Your task to perform on an android device: Open display settings Image 0: 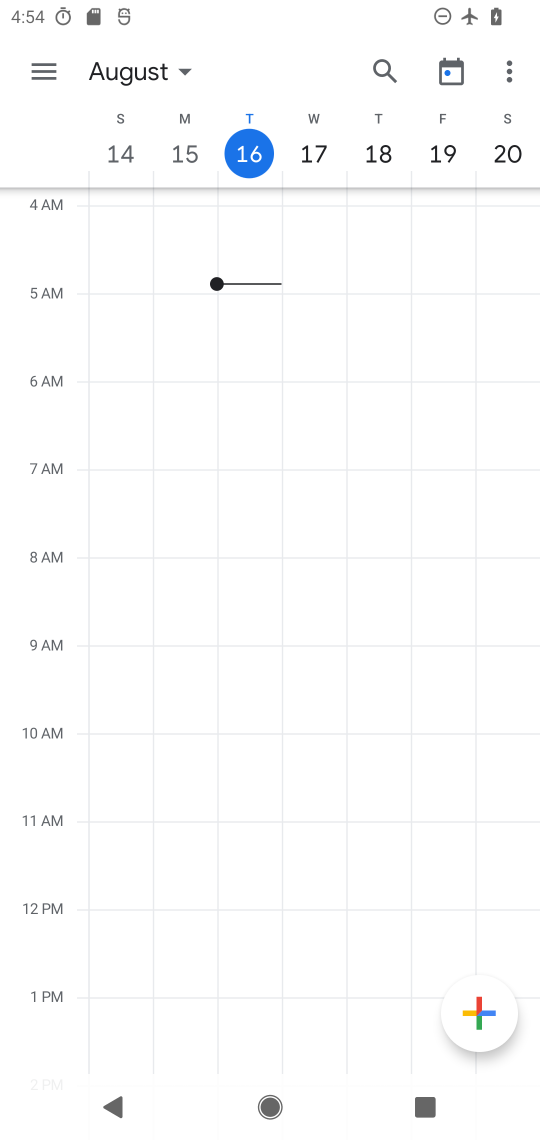
Step 0: press home button
Your task to perform on an android device: Open display settings Image 1: 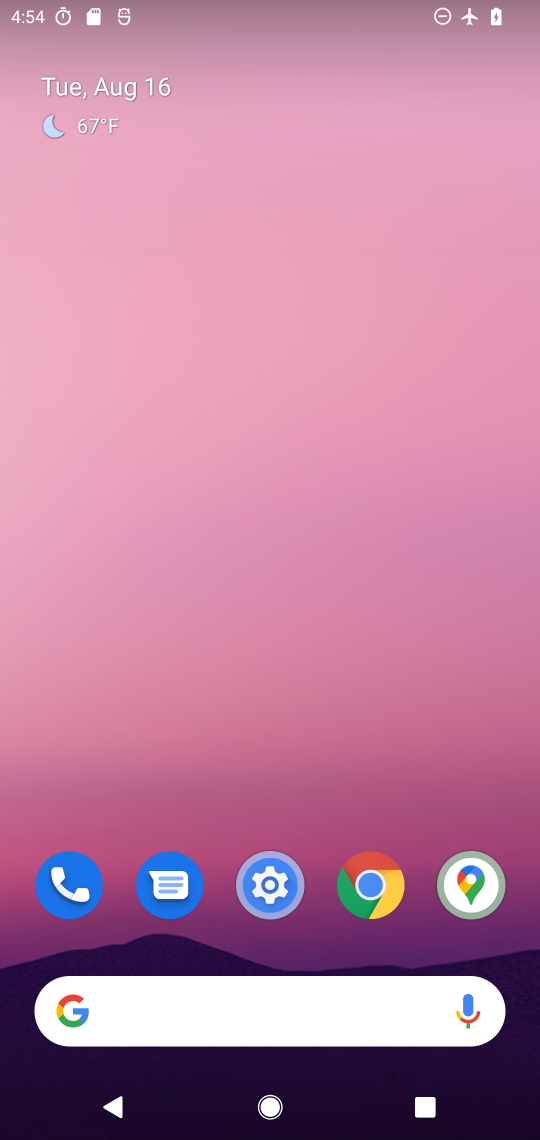
Step 1: drag from (337, 909) to (341, 192)
Your task to perform on an android device: Open display settings Image 2: 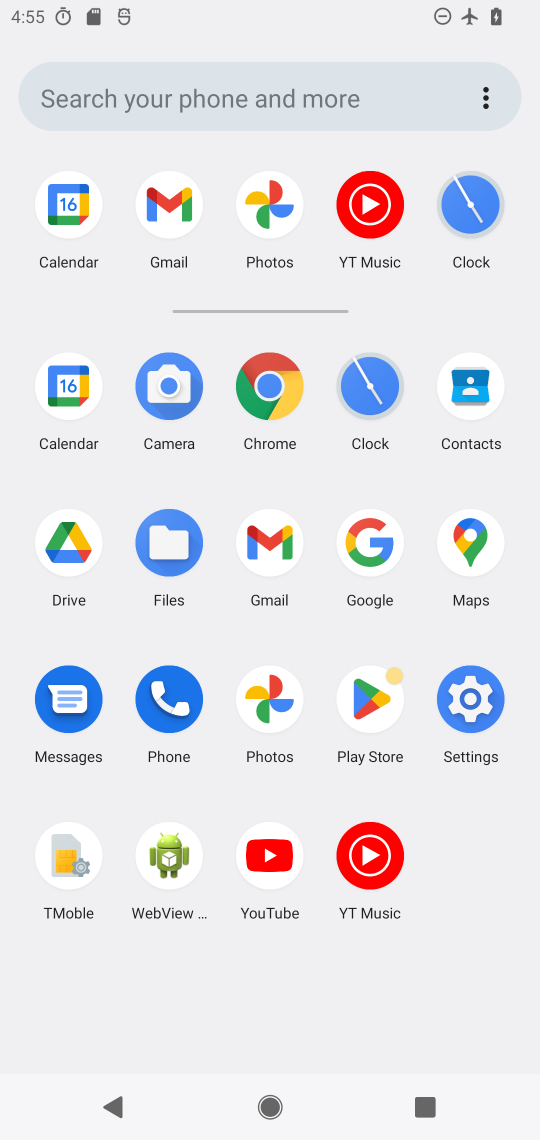
Step 2: click (460, 690)
Your task to perform on an android device: Open display settings Image 3: 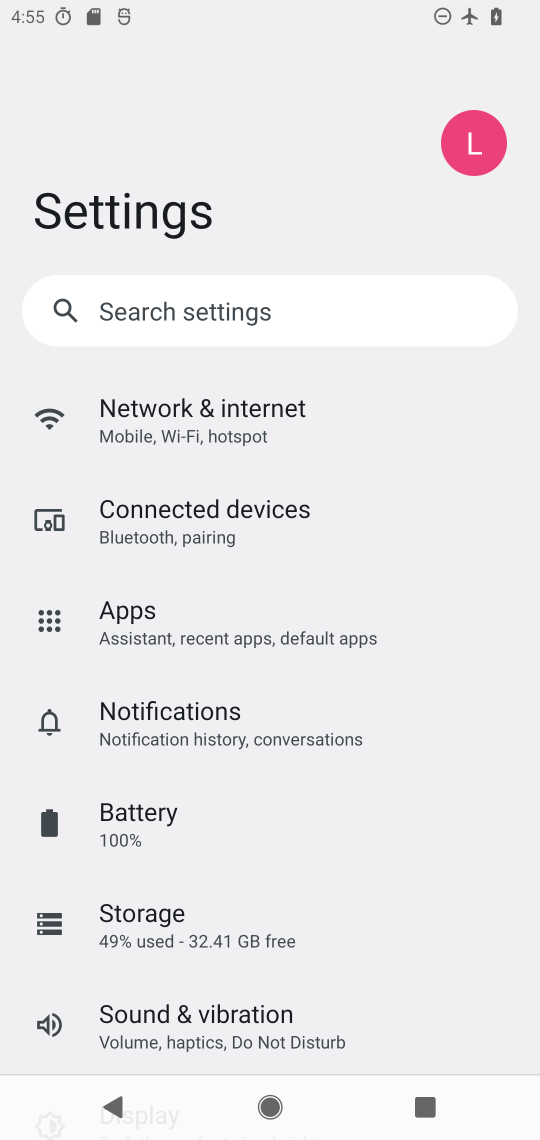
Step 3: drag from (190, 953) to (273, 421)
Your task to perform on an android device: Open display settings Image 4: 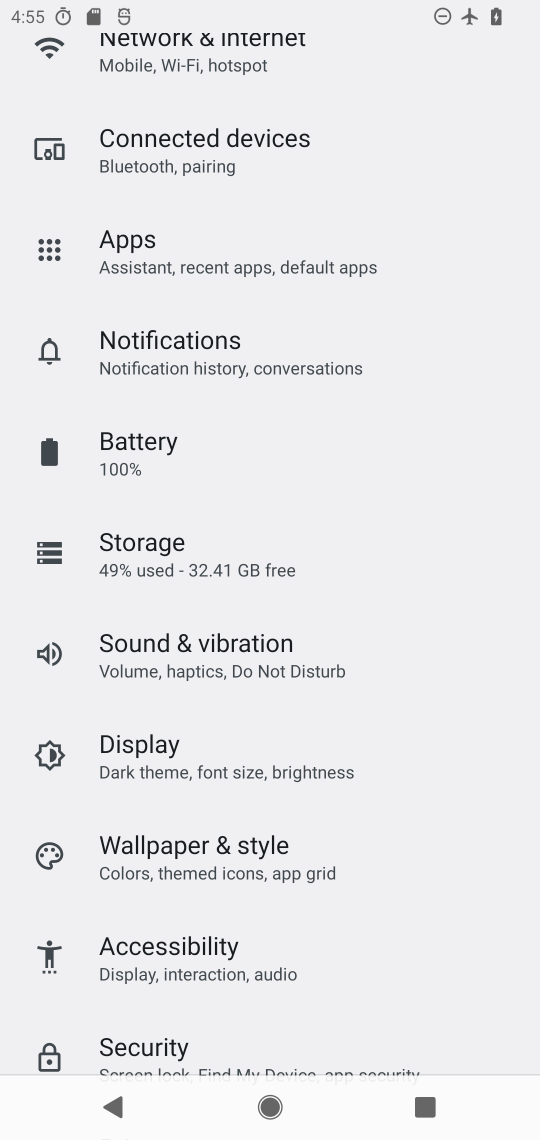
Step 4: click (182, 772)
Your task to perform on an android device: Open display settings Image 5: 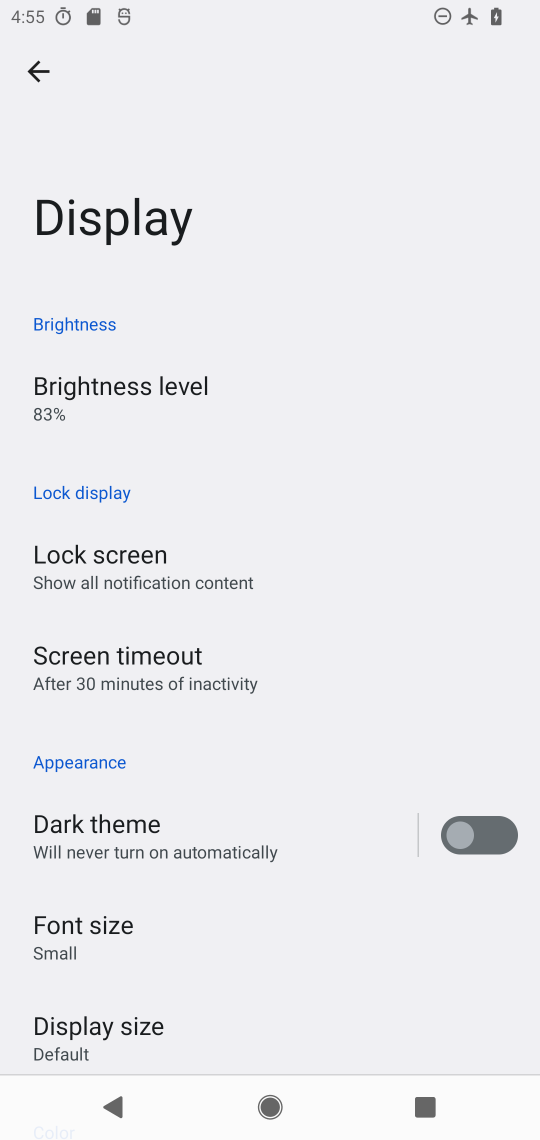
Step 5: task complete